Your task to perform on an android device: turn off javascript in the chrome app Image 0: 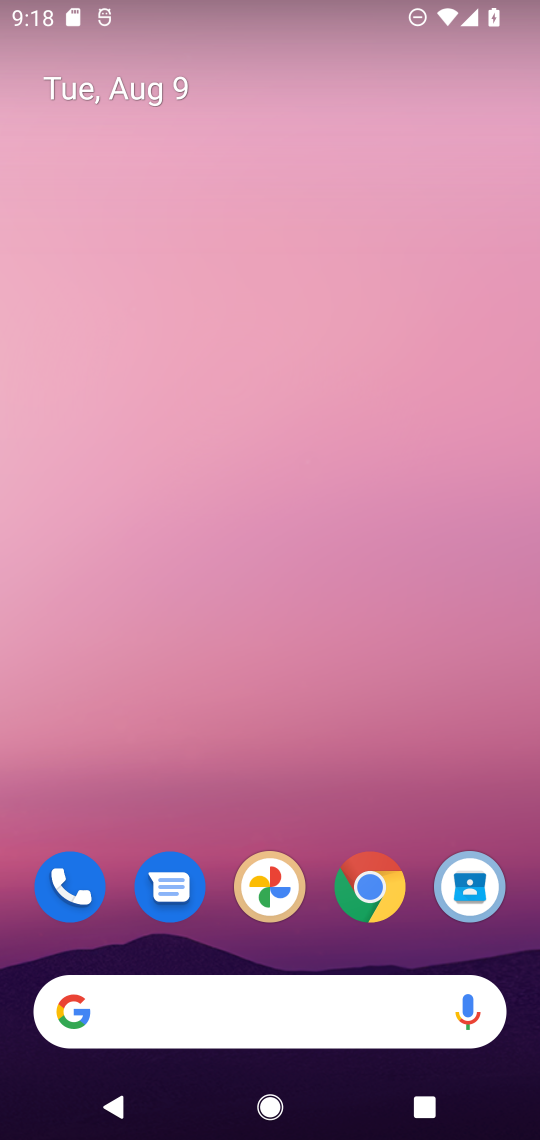
Step 0: click (365, 898)
Your task to perform on an android device: turn off javascript in the chrome app Image 1: 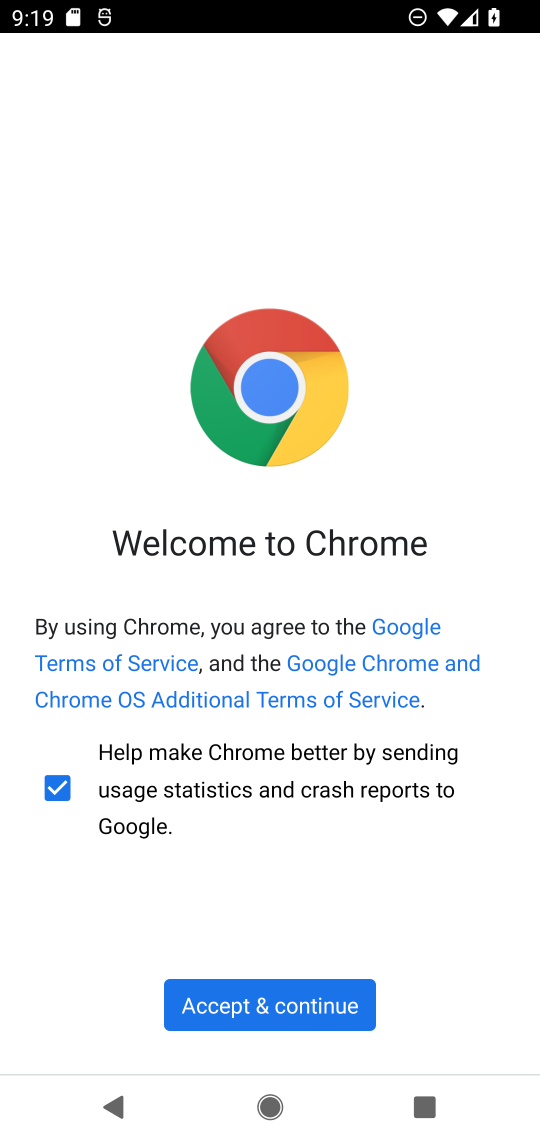
Step 1: click (281, 982)
Your task to perform on an android device: turn off javascript in the chrome app Image 2: 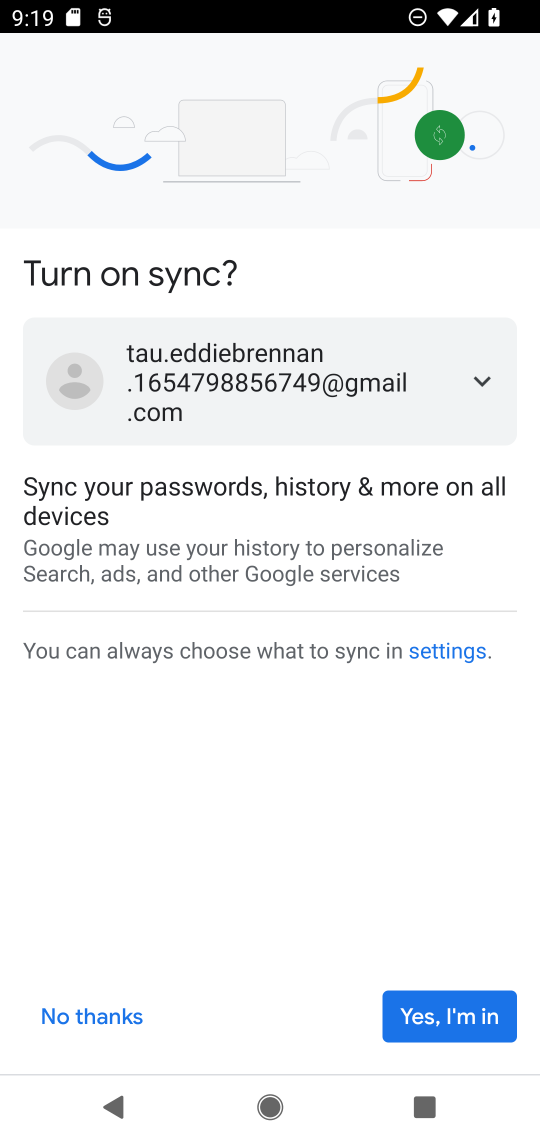
Step 2: click (413, 1002)
Your task to perform on an android device: turn off javascript in the chrome app Image 3: 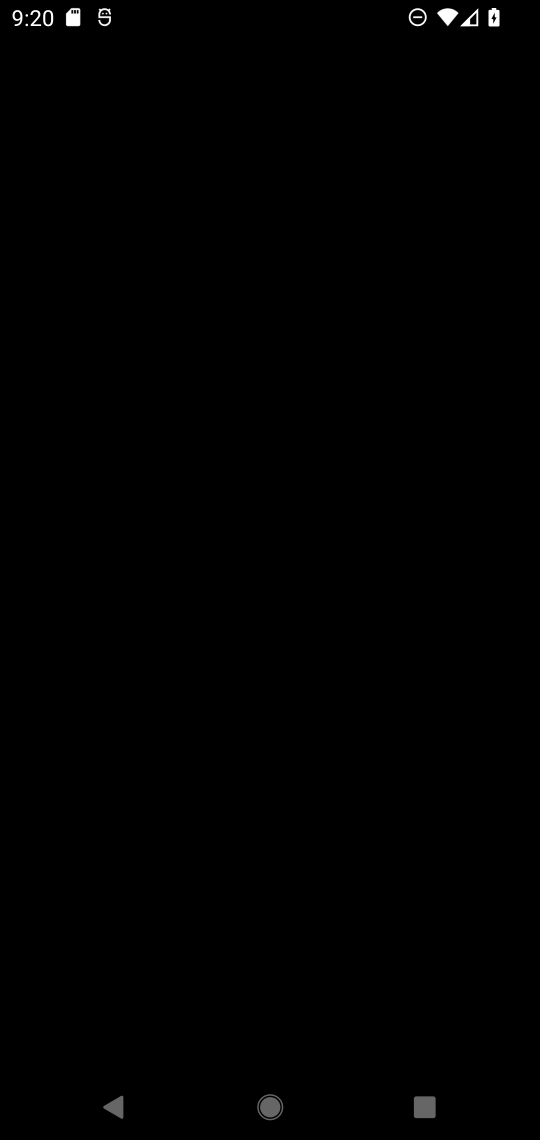
Step 3: task complete